Your task to perform on an android device: Go to Google Image 0: 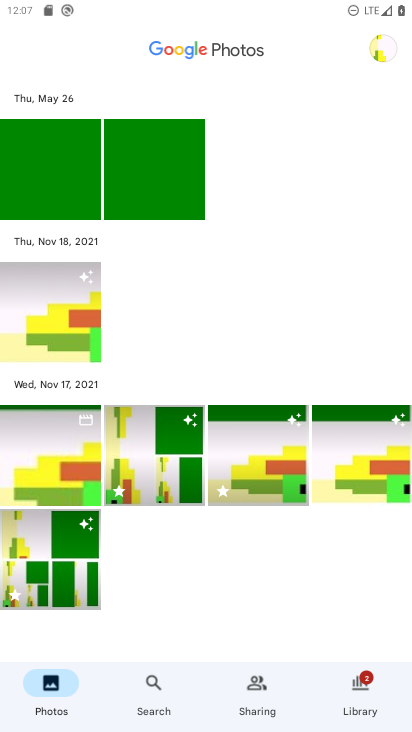
Step 0: press home button
Your task to perform on an android device: Go to Google Image 1: 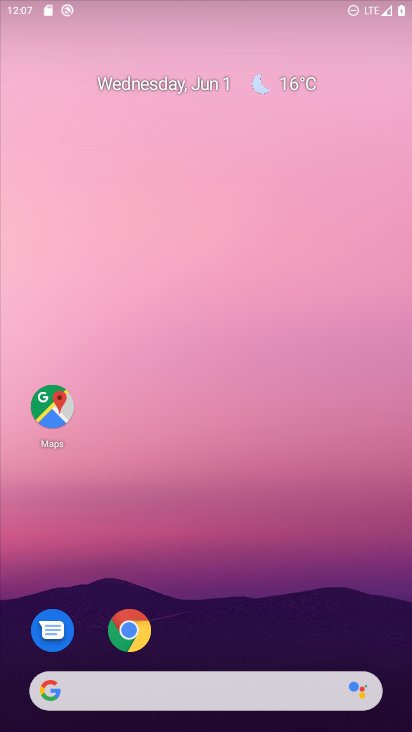
Step 1: drag from (300, 514) to (313, 362)
Your task to perform on an android device: Go to Google Image 2: 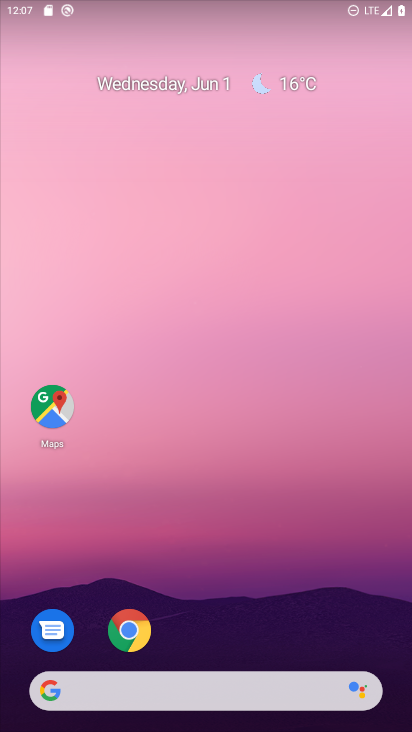
Step 2: drag from (240, 528) to (280, 94)
Your task to perform on an android device: Go to Google Image 3: 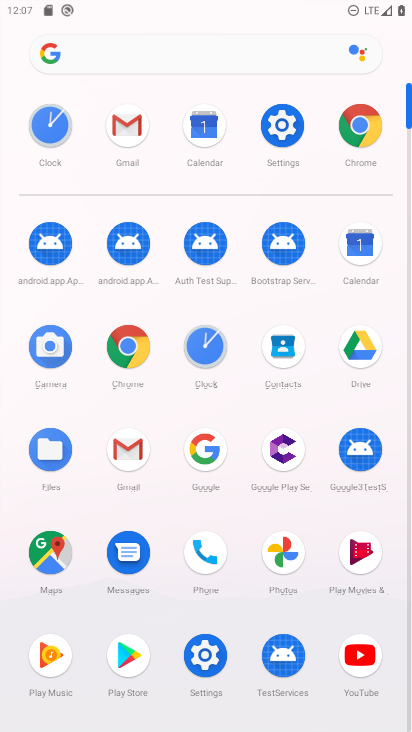
Step 3: click (205, 457)
Your task to perform on an android device: Go to Google Image 4: 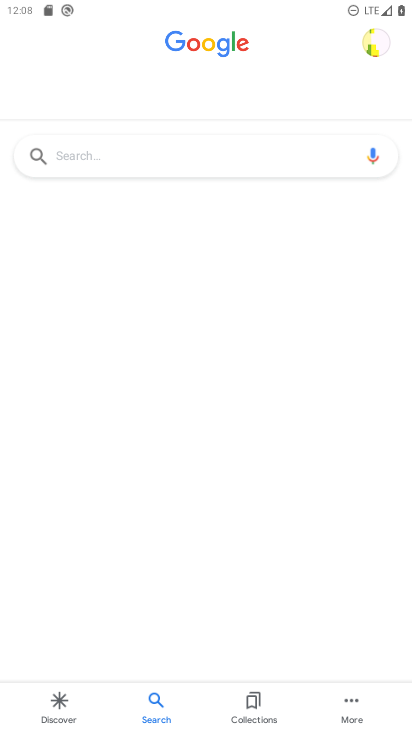
Step 4: task complete